Your task to perform on an android device: Go to eBay Image 0: 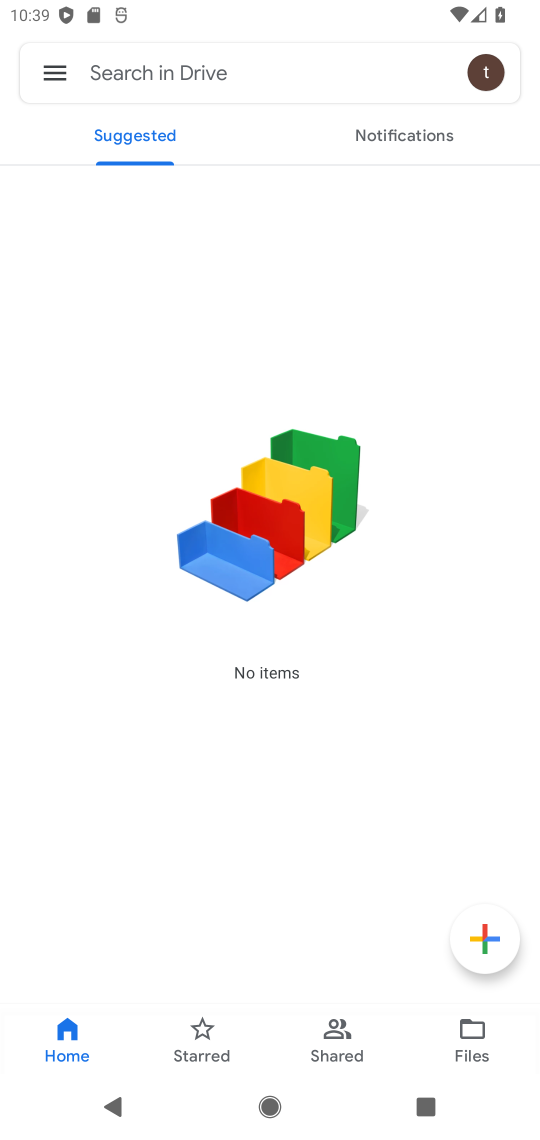
Step 0: press home button
Your task to perform on an android device: Go to eBay Image 1: 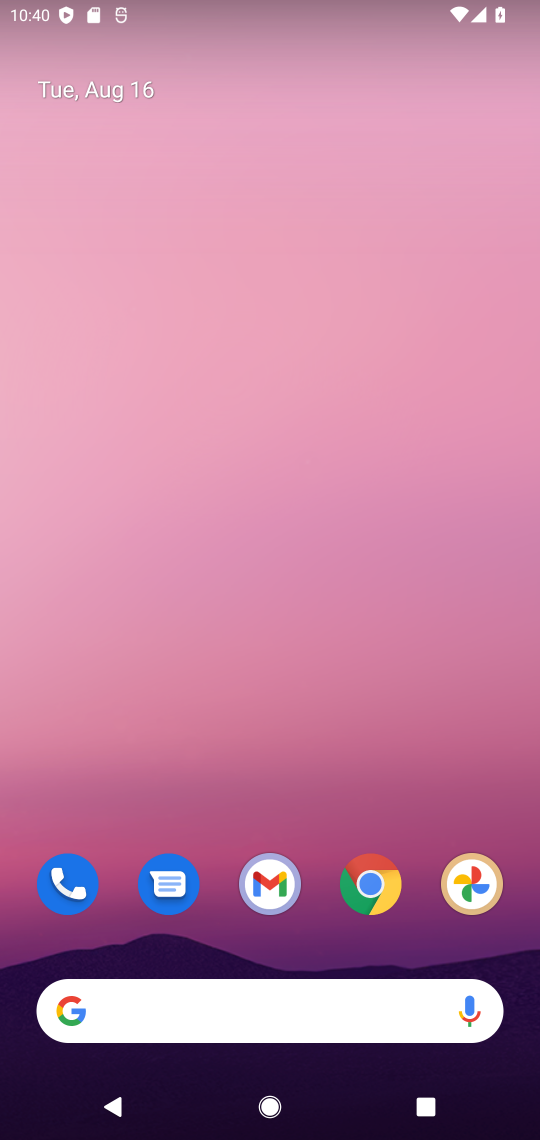
Step 1: click (370, 876)
Your task to perform on an android device: Go to eBay Image 2: 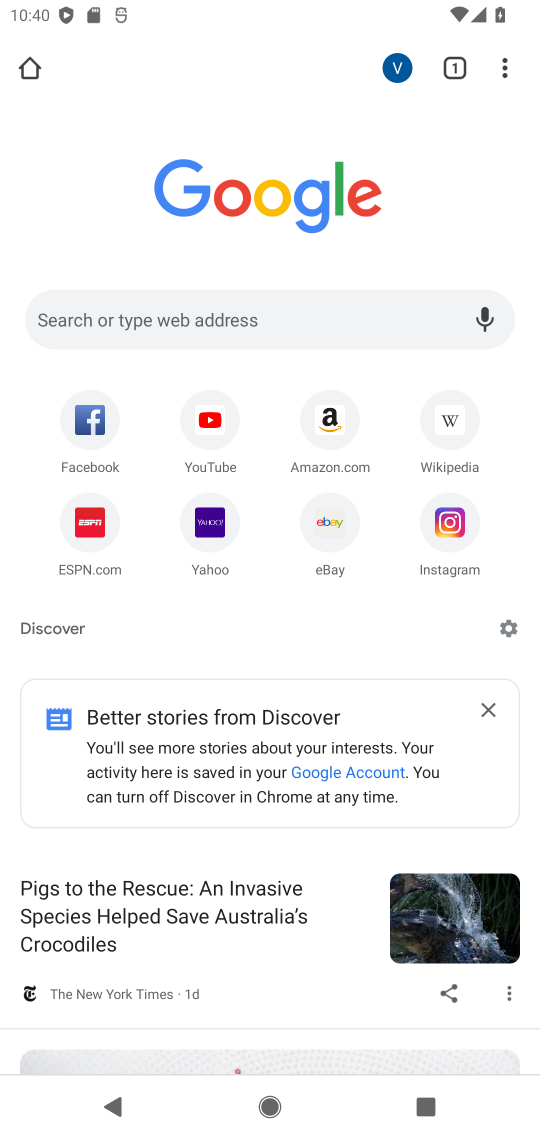
Step 2: click (311, 540)
Your task to perform on an android device: Go to eBay Image 3: 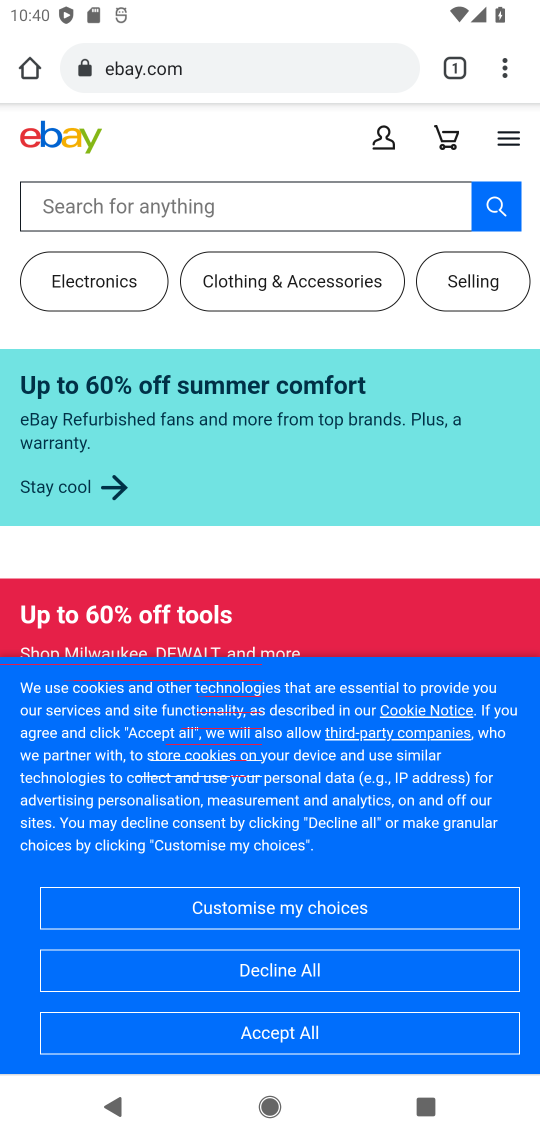
Step 3: task complete